Your task to perform on an android device: Search for "razer naga" on target.com, select the first entry, add it to the cart, then select checkout. Image 0: 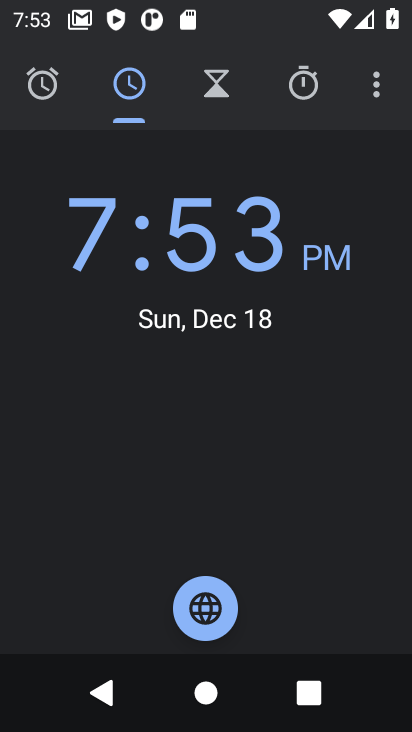
Step 0: press home button
Your task to perform on an android device: Search for "razer naga" on target.com, select the first entry, add it to the cart, then select checkout. Image 1: 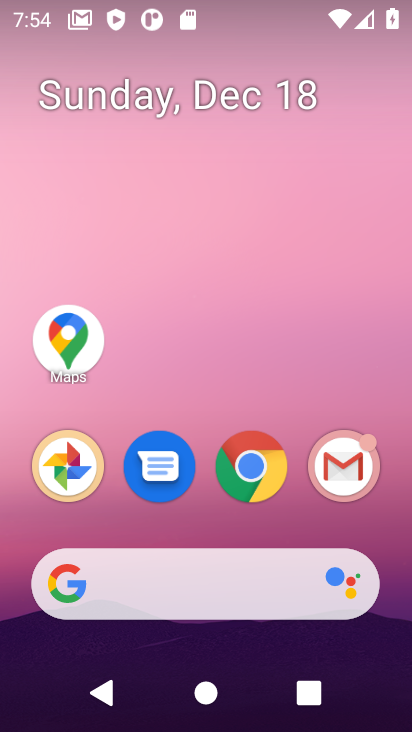
Step 1: click (241, 480)
Your task to perform on an android device: Search for "razer naga" on target.com, select the first entry, add it to the cart, then select checkout. Image 2: 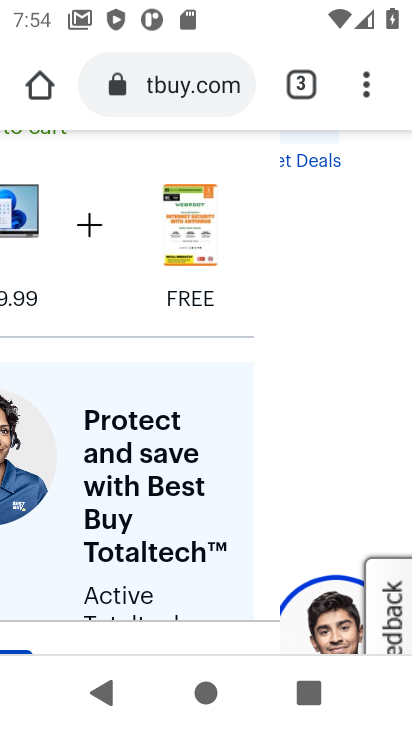
Step 2: click (209, 78)
Your task to perform on an android device: Search for "razer naga" on target.com, select the first entry, add it to the cart, then select checkout. Image 3: 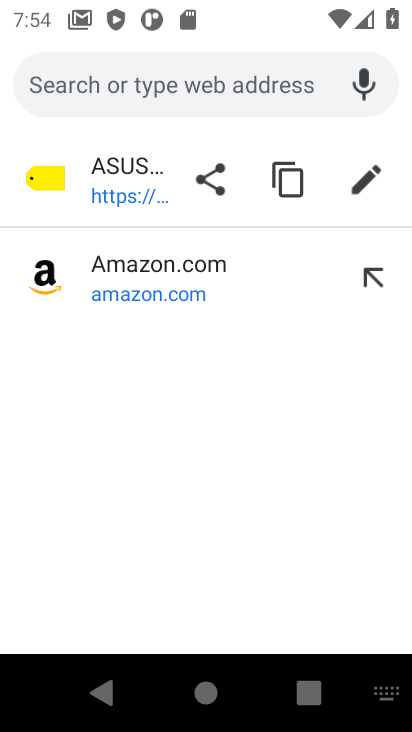
Step 3: type "target"
Your task to perform on an android device: Search for "razer naga" on target.com, select the first entry, add it to the cart, then select checkout. Image 4: 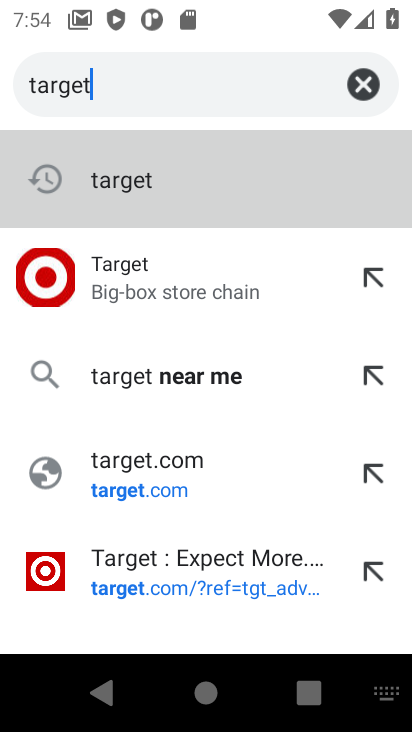
Step 4: click (167, 288)
Your task to perform on an android device: Search for "razer naga" on target.com, select the first entry, add it to the cart, then select checkout. Image 5: 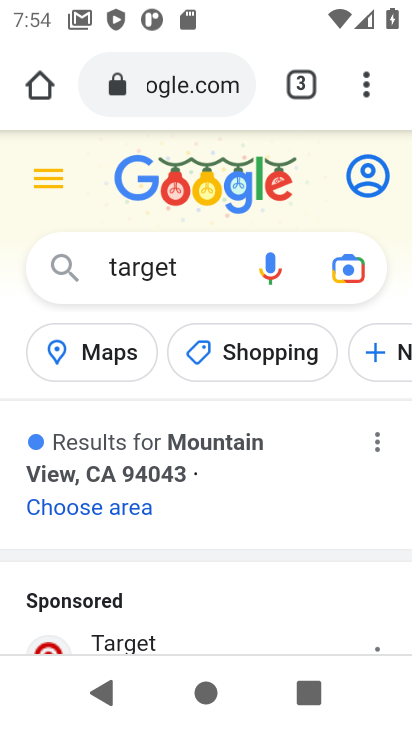
Step 5: drag from (228, 551) to (180, 134)
Your task to perform on an android device: Search for "razer naga" on target.com, select the first entry, add it to the cart, then select checkout. Image 6: 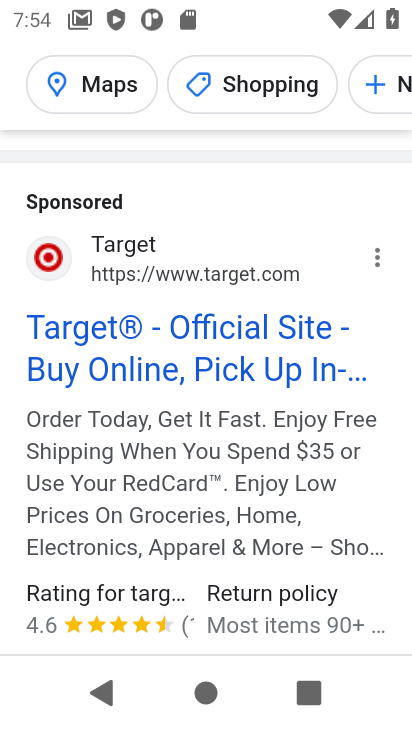
Step 6: click (187, 316)
Your task to perform on an android device: Search for "razer naga" on target.com, select the first entry, add it to the cart, then select checkout. Image 7: 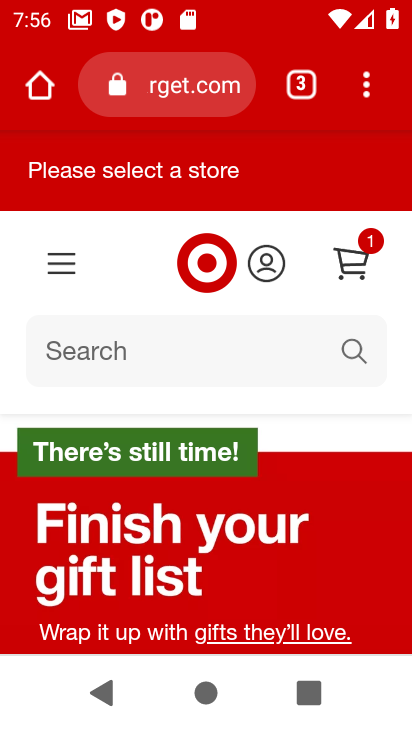
Step 7: click (200, 345)
Your task to perform on an android device: Search for "razer naga" on target.com, select the first entry, add it to the cart, then select checkout. Image 8: 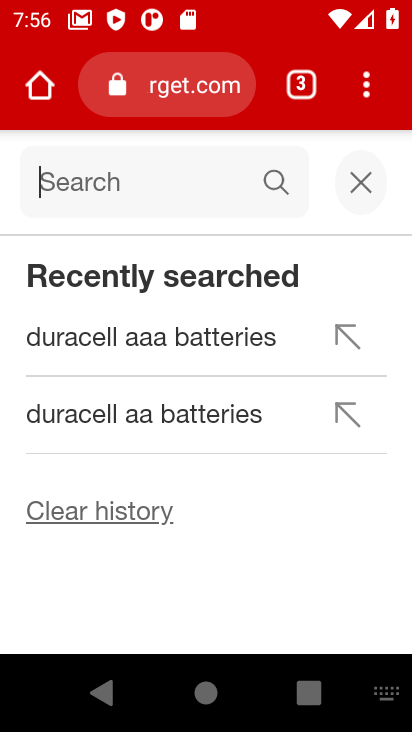
Step 8: click (246, 179)
Your task to perform on an android device: Search for "razer naga" on target.com, select the first entry, add it to the cart, then select checkout. Image 9: 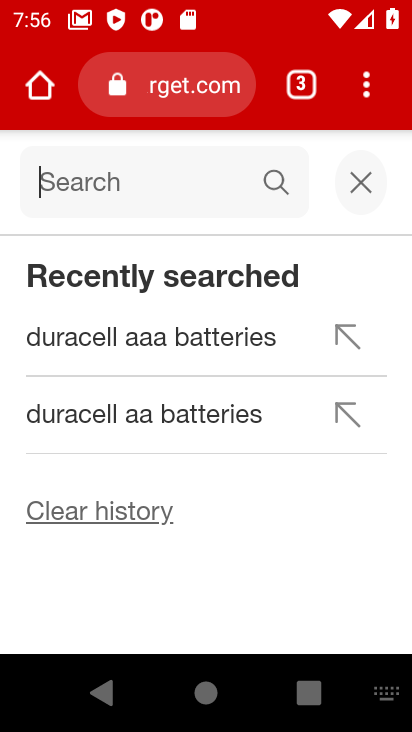
Step 9: type "razer naga"
Your task to perform on an android device: Search for "razer naga" on target.com, select the first entry, add it to the cart, then select checkout. Image 10: 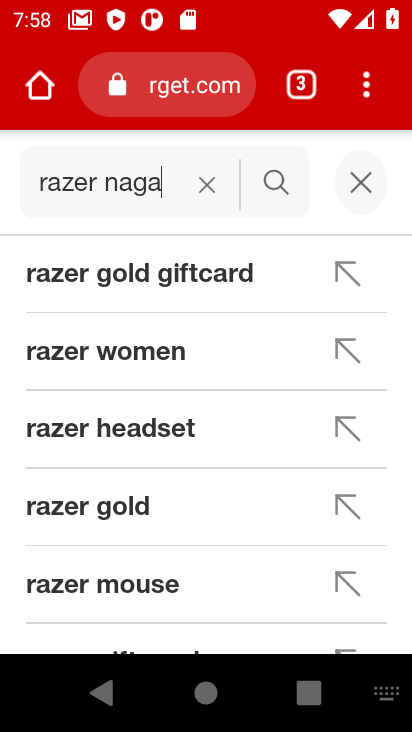
Step 10: task complete